Your task to perform on an android device: Open the calendar and show me this week's events Image 0: 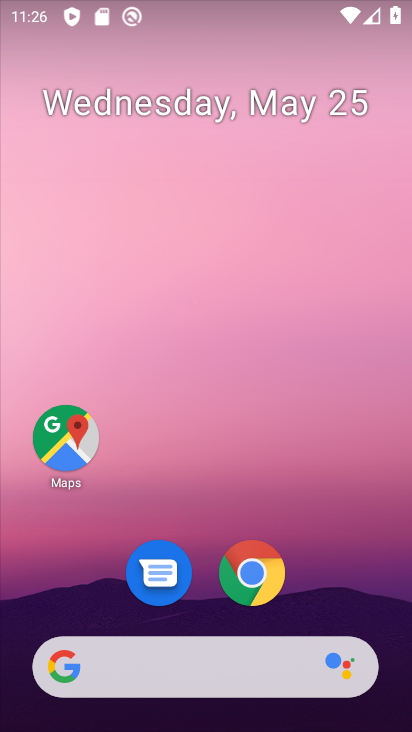
Step 0: drag from (202, 654) to (175, 49)
Your task to perform on an android device: Open the calendar and show me this week's events Image 1: 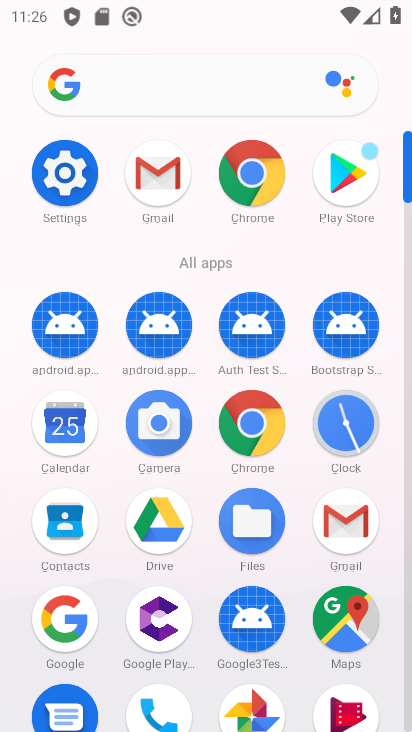
Step 1: click (68, 425)
Your task to perform on an android device: Open the calendar and show me this week's events Image 2: 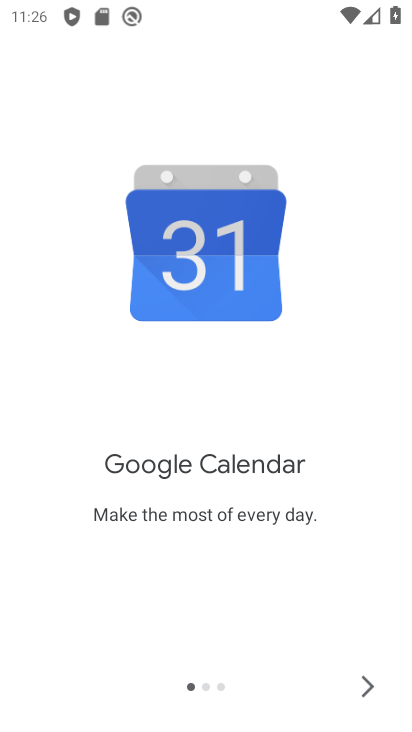
Step 2: click (370, 688)
Your task to perform on an android device: Open the calendar and show me this week's events Image 3: 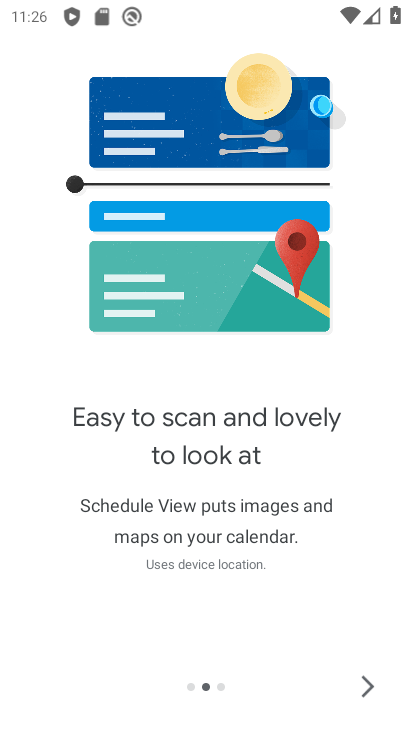
Step 3: click (368, 687)
Your task to perform on an android device: Open the calendar and show me this week's events Image 4: 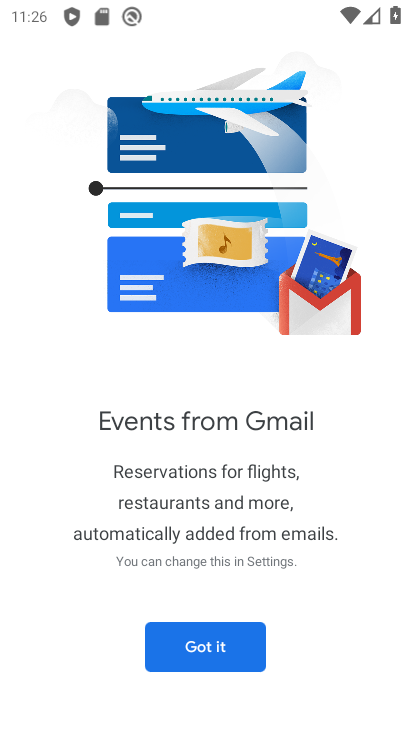
Step 4: click (212, 664)
Your task to perform on an android device: Open the calendar and show me this week's events Image 5: 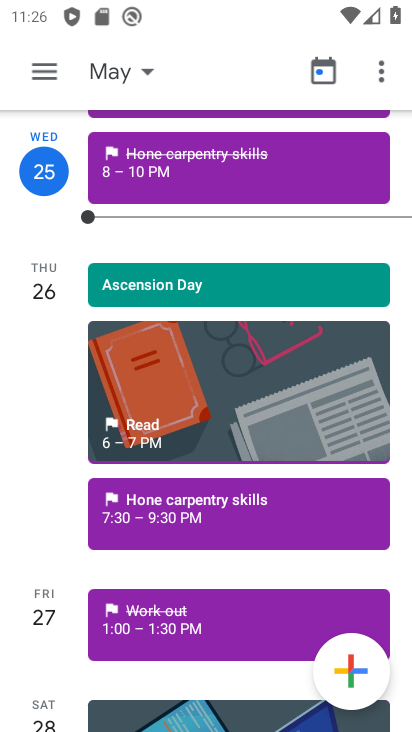
Step 5: click (44, 78)
Your task to perform on an android device: Open the calendar and show me this week's events Image 6: 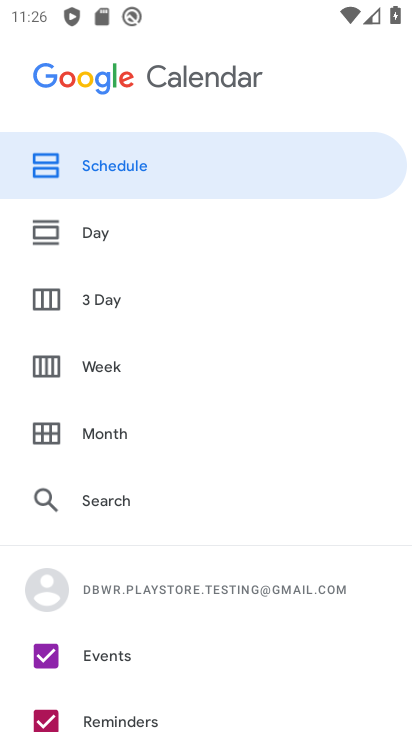
Step 6: click (111, 356)
Your task to perform on an android device: Open the calendar and show me this week's events Image 7: 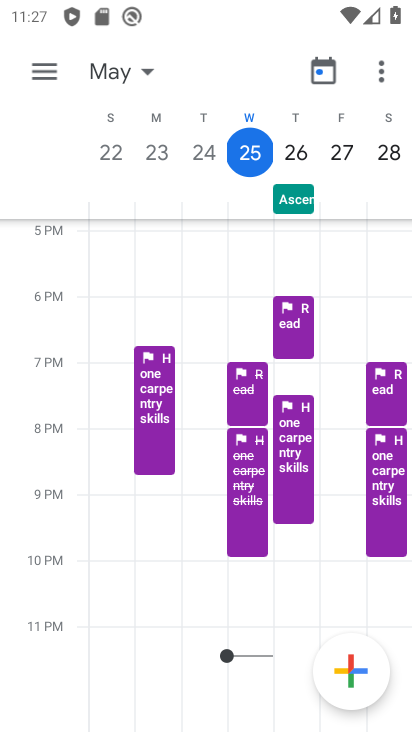
Step 7: task complete